Your task to perform on an android device: find snoozed emails in the gmail app Image 0: 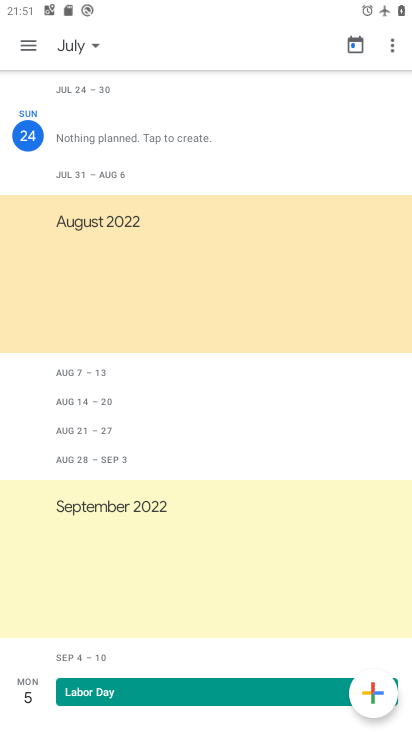
Step 0: press home button
Your task to perform on an android device: find snoozed emails in the gmail app Image 1: 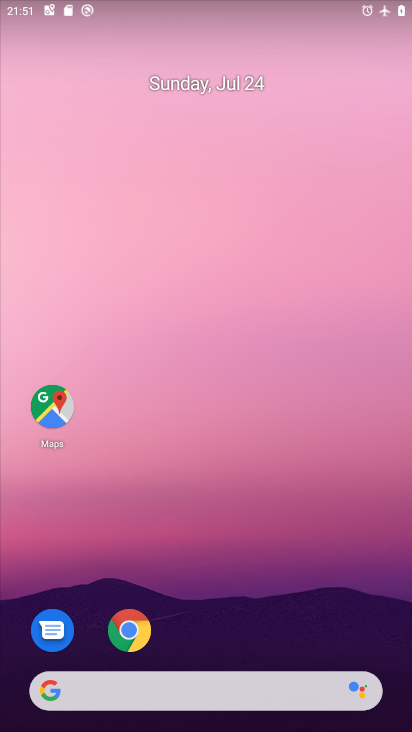
Step 1: drag from (209, 648) to (275, 162)
Your task to perform on an android device: find snoozed emails in the gmail app Image 2: 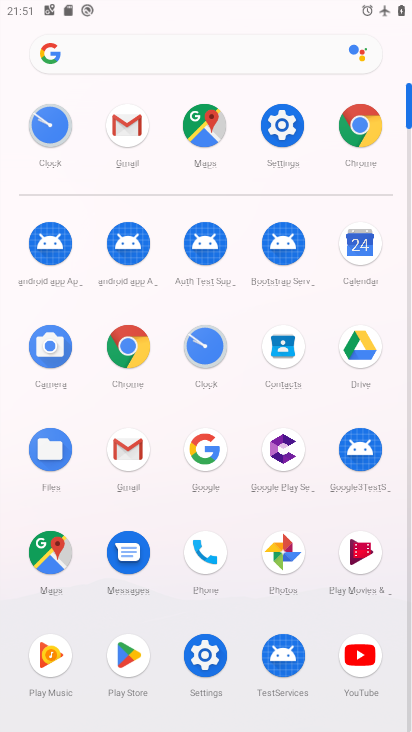
Step 2: click (120, 446)
Your task to perform on an android device: find snoozed emails in the gmail app Image 3: 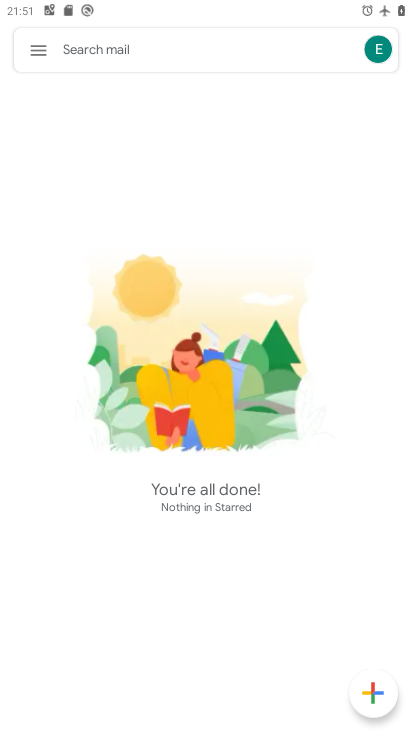
Step 3: click (44, 47)
Your task to perform on an android device: find snoozed emails in the gmail app Image 4: 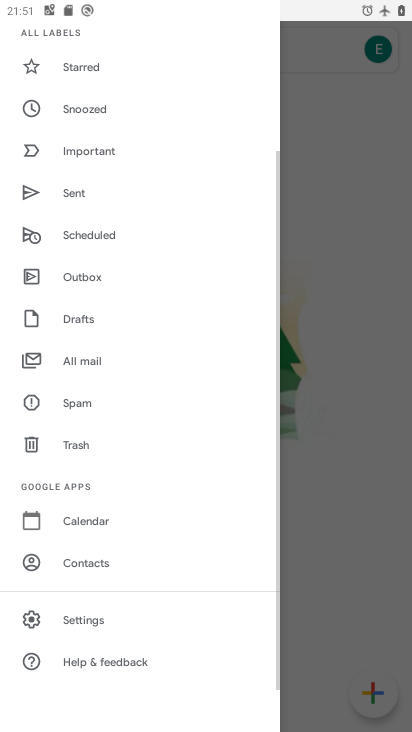
Step 4: click (95, 110)
Your task to perform on an android device: find snoozed emails in the gmail app Image 5: 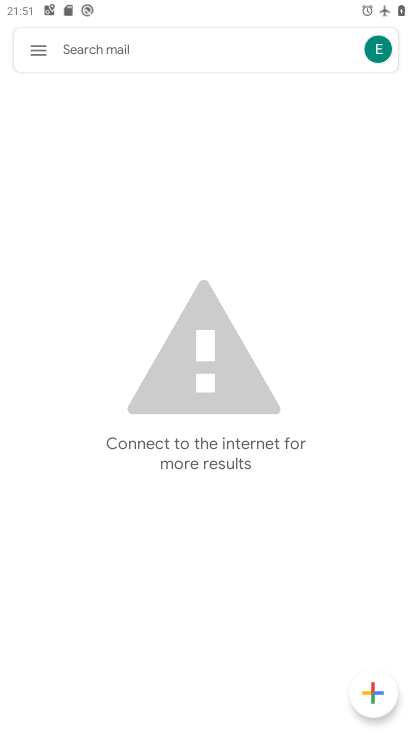
Step 5: task complete